Your task to perform on an android device: check battery use Image 0: 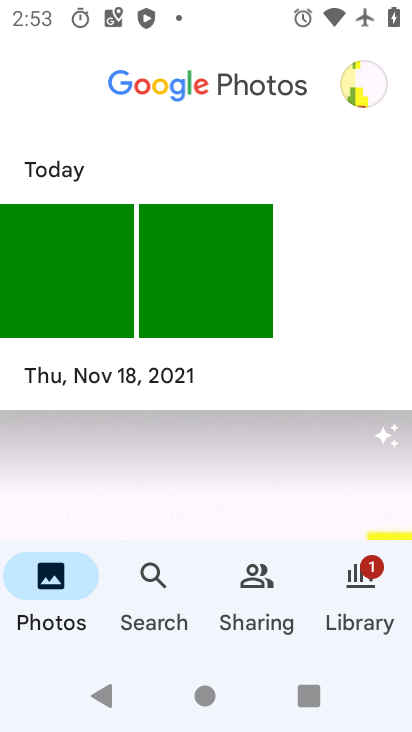
Step 0: press home button
Your task to perform on an android device: check battery use Image 1: 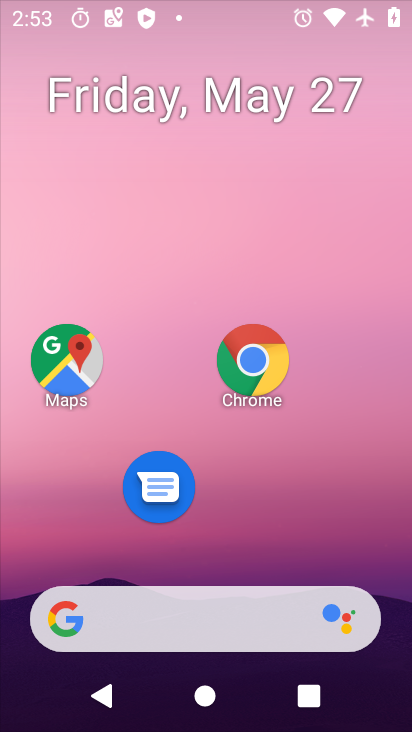
Step 1: drag from (255, 491) to (308, 63)
Your task to perform on an android device: check battery use Image 2: 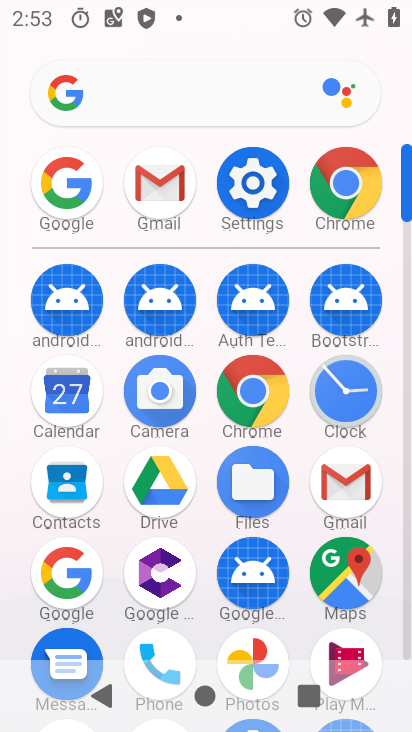
Step 2: click (240, 191)
Your task to perform on an android device: check battery use Image 3: 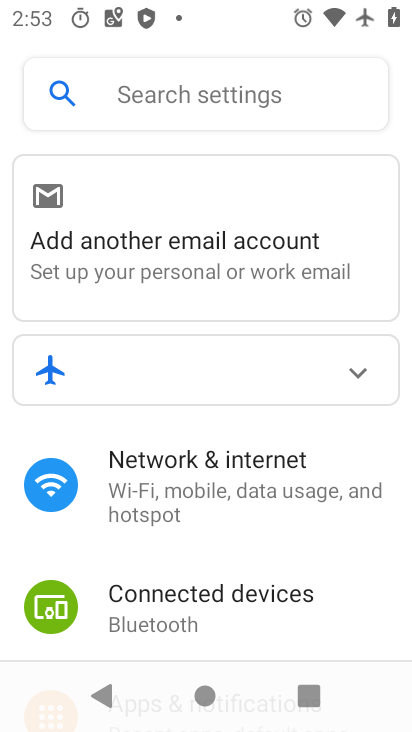
Step 3: drag from (260, 594) to (322, 184)
Your task to perform on an android device: check battery use Image 4: 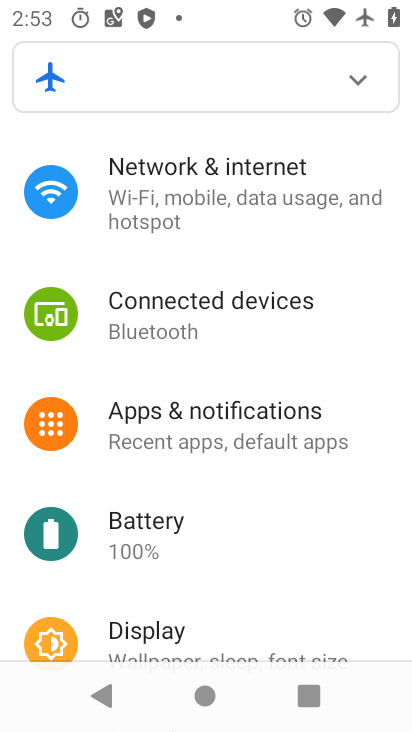
Step 4: click (126, 540)
Your task to perform on an android device: check battery use Image 5: 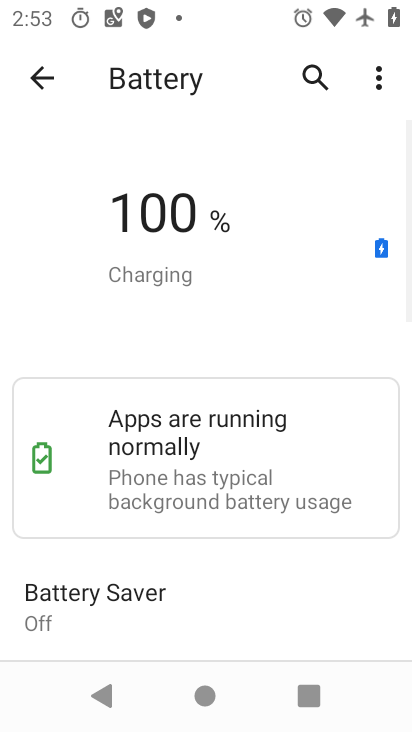
Step 5: click (367, 79)
Your task to perform on an android device: check battery use Image 6: 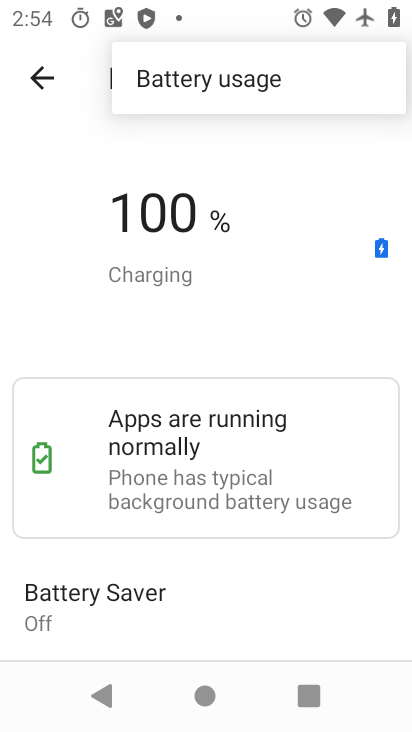
Step 6: click (199, 88)
Your task to perform on an android device: check battery use Image 7: 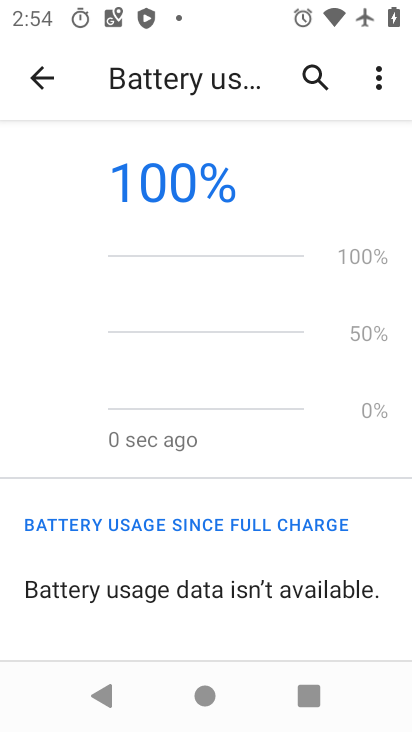
Step 7: task complete